Your task to perform on an android device: turn off location history Image 0: 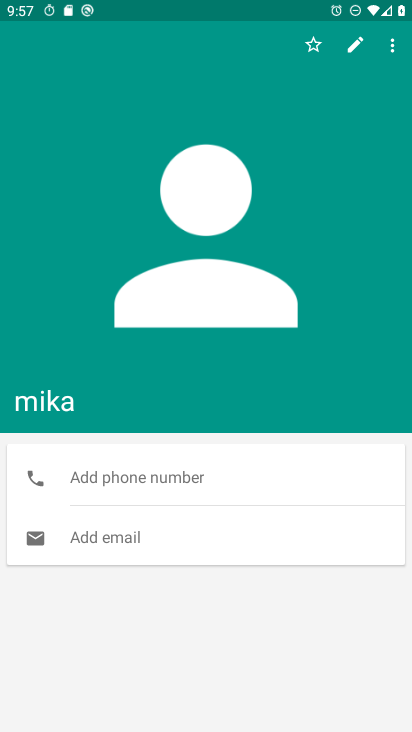
Step 0: press home button
Your task to perform on an android device: turn off location history Image 1: 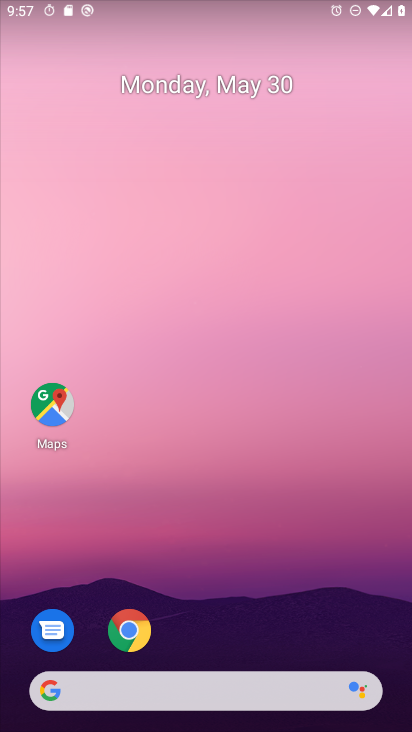
Step 1: drag from (354, 598) to (328, 58)
Your task to perform on an android device: turn off location history Image 2: 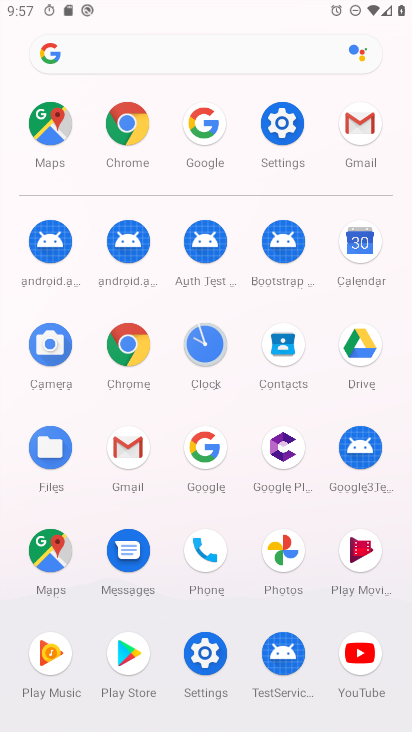
Step 2: click (328, 58)
Your task to perform on an android device: turn off location history Image 3: 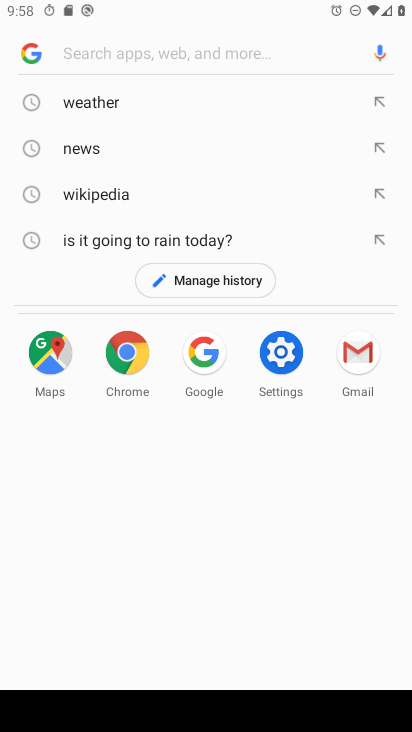
Step 3: press home button
Your task to perform on an android device: turn off location history Image 4: 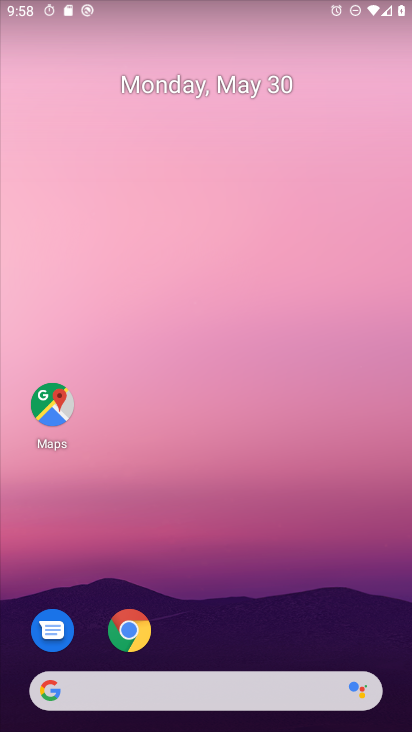
Step 4: drag from (330, 624) to (246, 70)
Your task to perform on an android device: turn off location history Image 5: 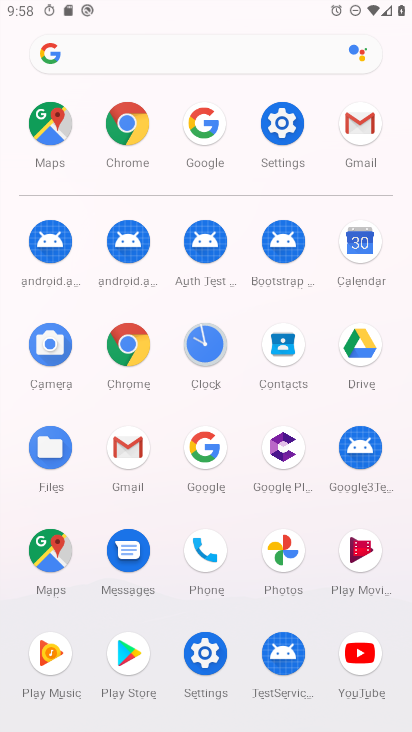
Step 5: click (273, 137)
Your task to perform on an android device: turn off location history Image 6: 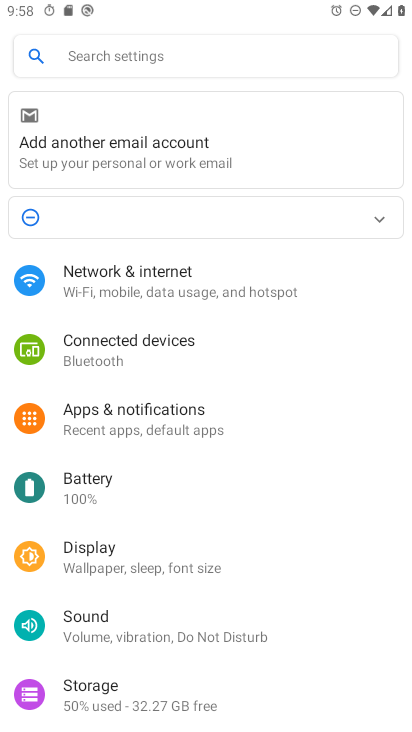
Step 6: drag from (154, 665) to (212, 251)
Your task to perform on an android device: turn off location history Image 7: 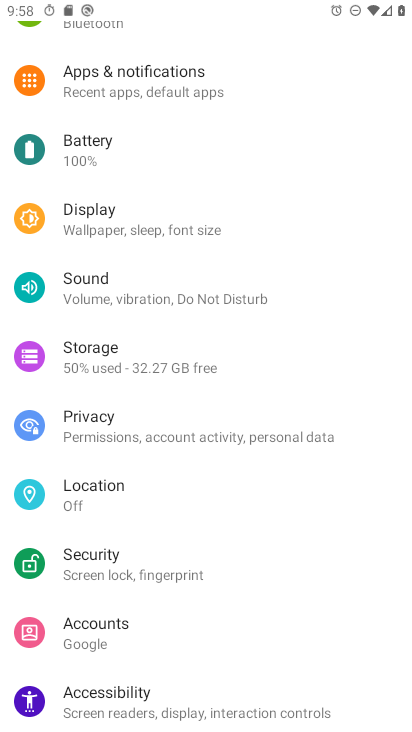
Step 7: click (109, 503)
Your task to perform on an android device: turn off location history Image 8: 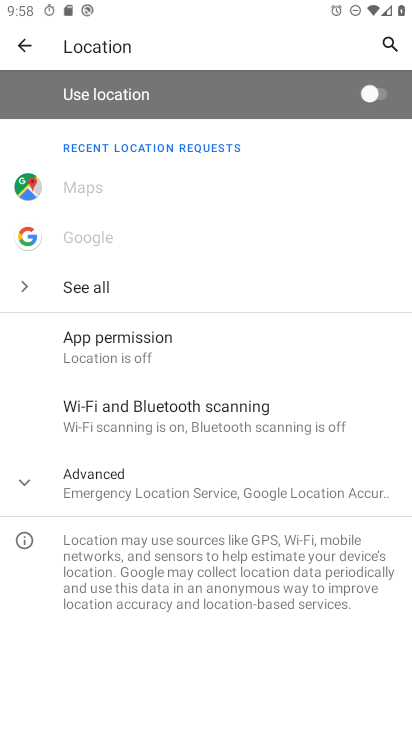
Step 8: click (171, 471)
Your task to perform on an android device: turn off location history Image 9: 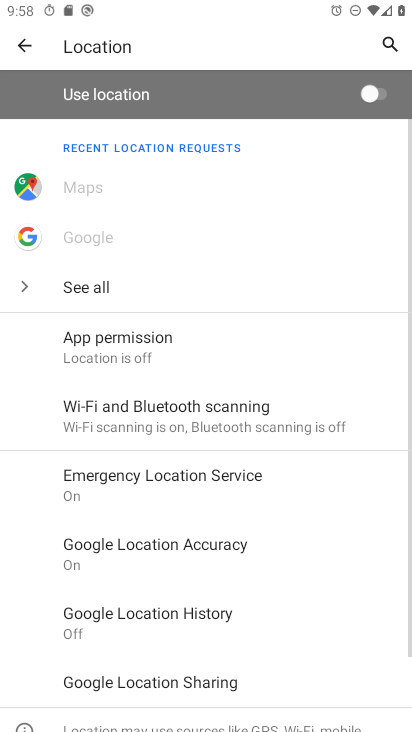
Step 9: click (210, 625)
Your task to perform on an android device: turn off location history Image 10: 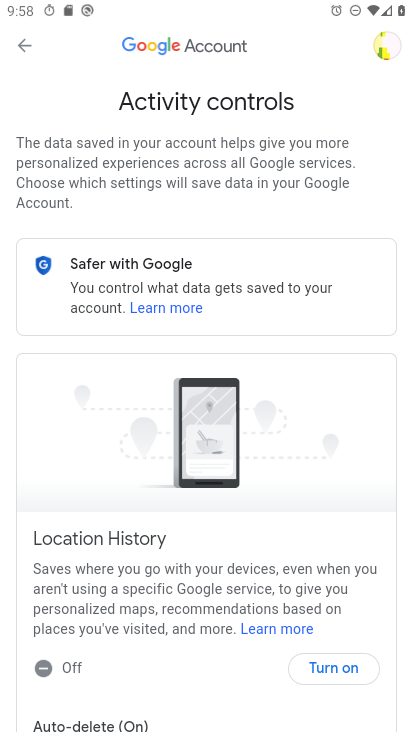
Step 10: click (332, 663)
Your task to perform on an android device: turn off location history Image 11: 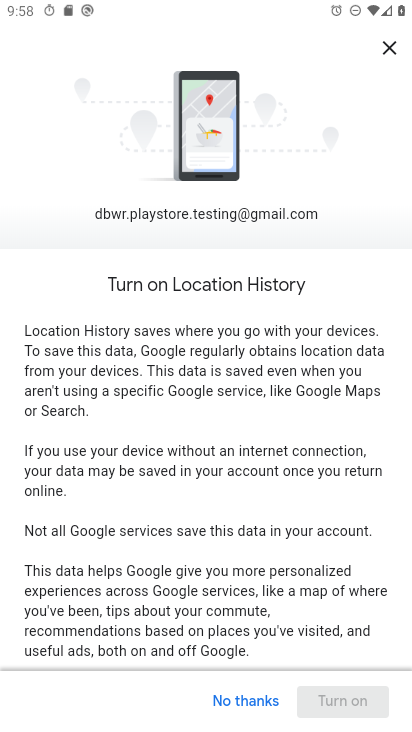
Step 11: task complete